Your task to perform on an android device: Open notification settings Image 0: 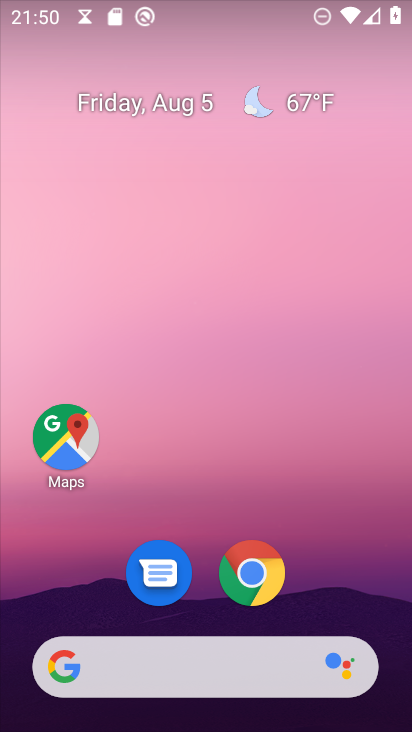
Step 0: drag from (187, 687) to (311, 126)
Your task to perform on an android device: Open notification settings Image 1: 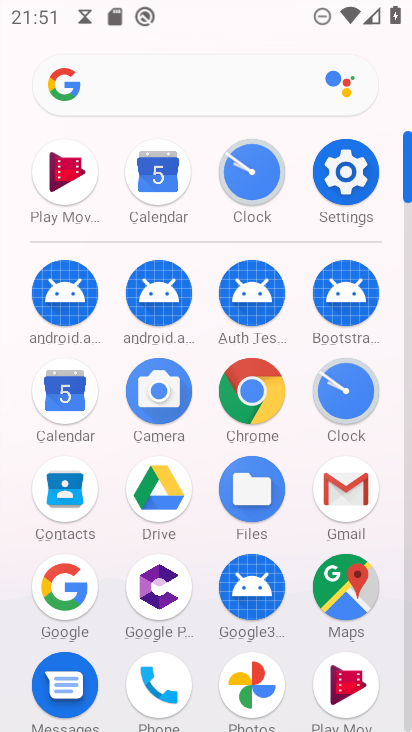
Step 1: click (348, 171)
Your task to perform on an android device: Open notification settings Image 2: 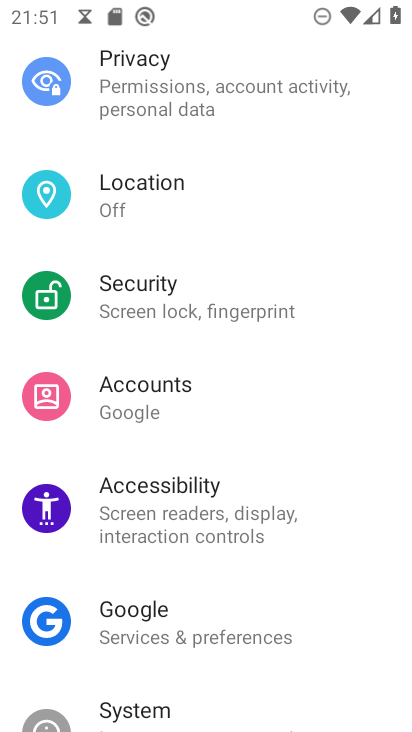
Step 2: drag from (220, 315) to (206, 449)
Your task to perform on an android device: Open notification settings Image 3: 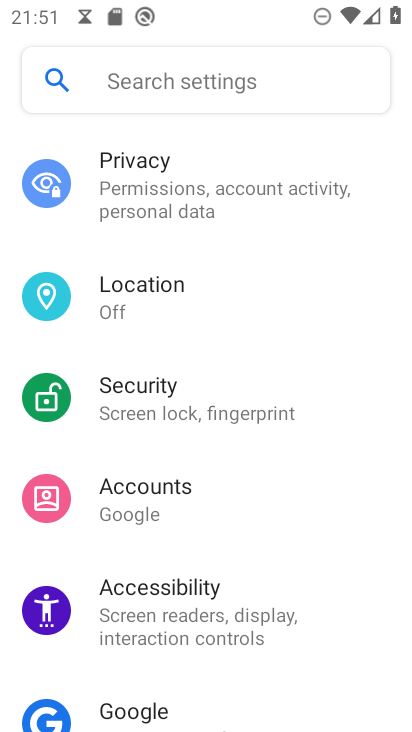
Step 3: drag from (227, 275) to (263, 526)
Your task to perform on an android device: Open notification settings Image 4: 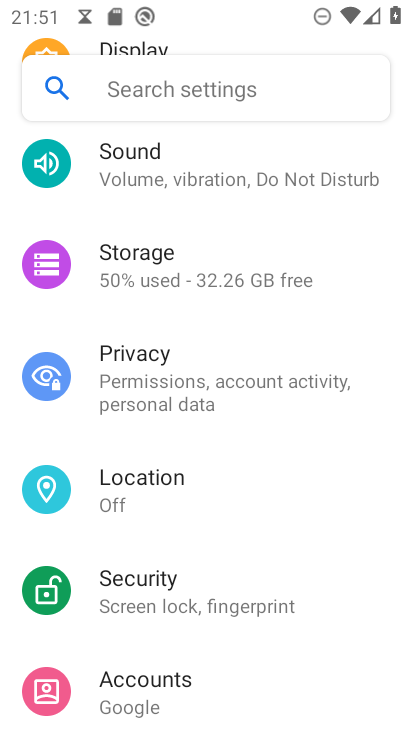
Step 4: drag from (238, 308) to (257, 462)
Your task to perform on an android device: Open notification settings Image 5: 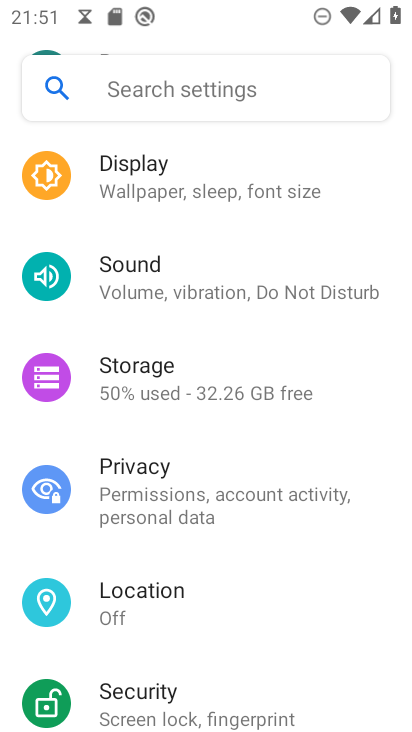
Step 5: drag from (237, 341) to (236, 389)
Your task to perform on an android device: Open notification settings Image 6: 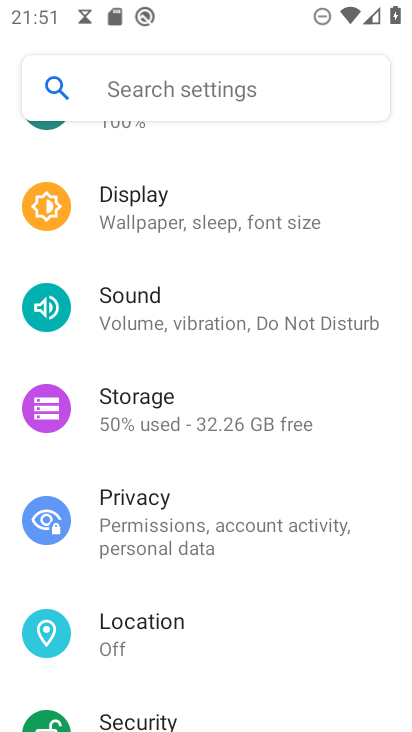
Step 6: drag from (240, 262) to (239, 329)
Your task to perform on an android device: Open notification settings Image 7: 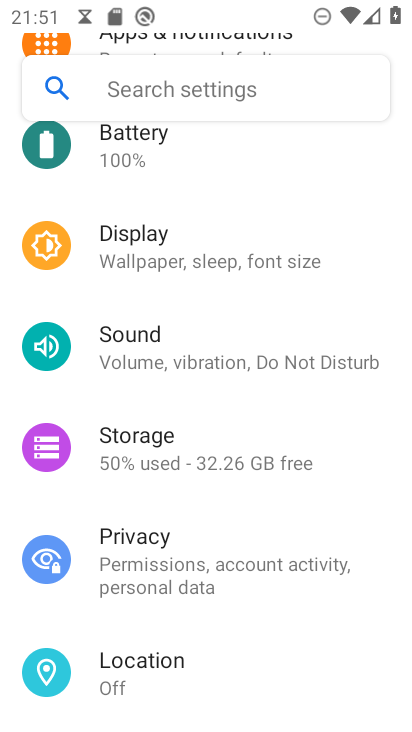
Step 7: drag from (239, 213) to (240, 300)
Your task to perform on an android device: Open notification settings Image 8: 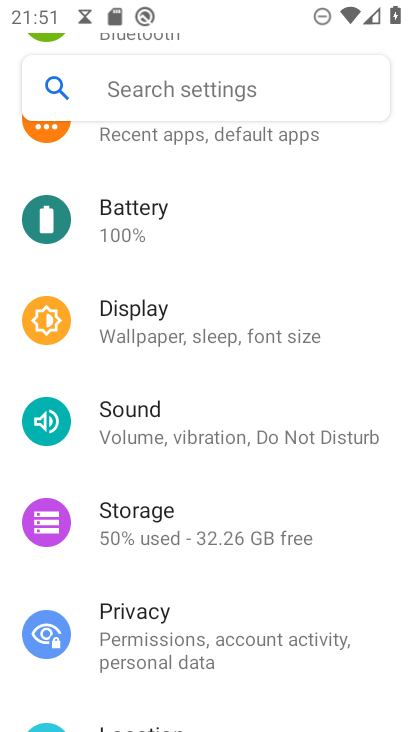
Step 8: drag from (260, 280) to (261, 377)
Your task to perform on an android device: Open notification settings Image 9: 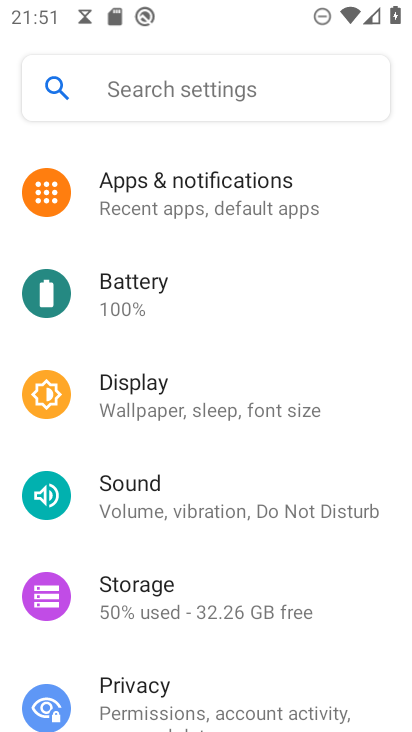
Step 9: click (230, 187)
Your task to perform on an android device: Open notification settings Image 10: 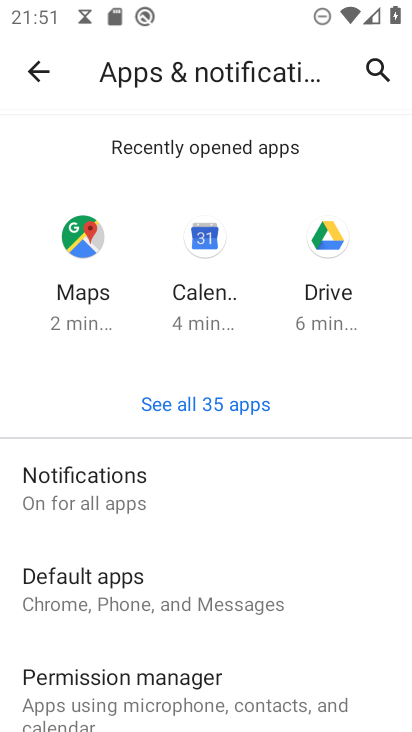
Step 10: click (131, 480)
Your task to perform on an android device: Open notification settings Image 11: 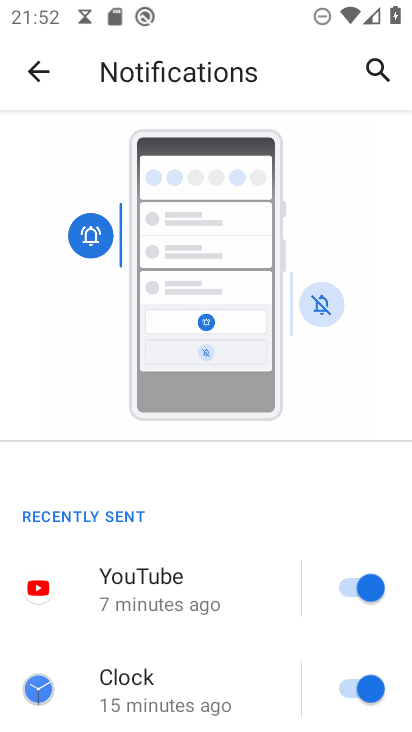
Step 11: task complete